Your task to perform on an android device: Install the eBay app Image 0: 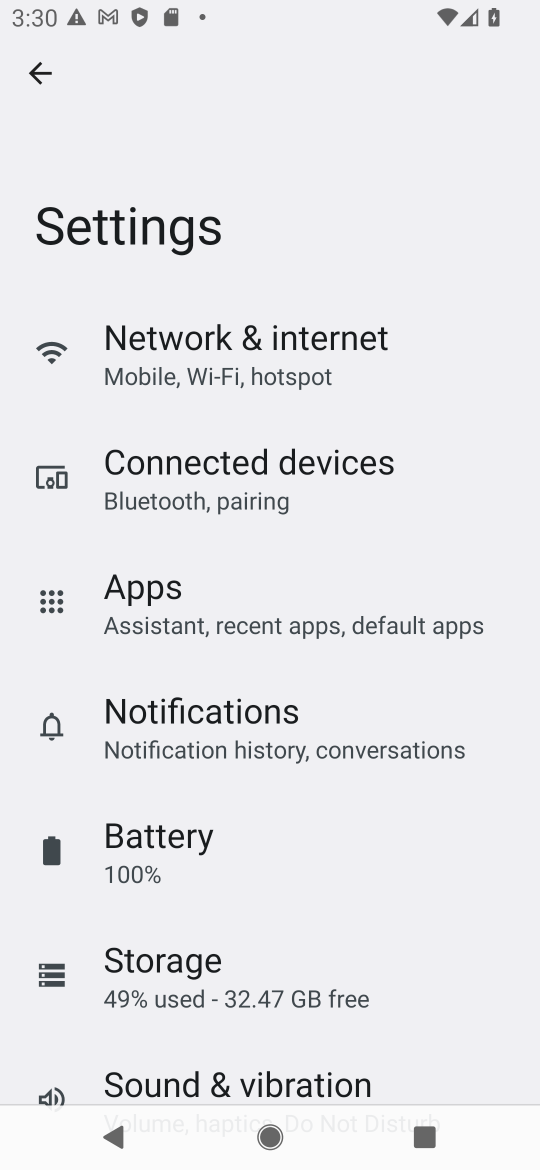
Step 0: press home button
Your task to perform on an android device: Install the eBay app Image 1: 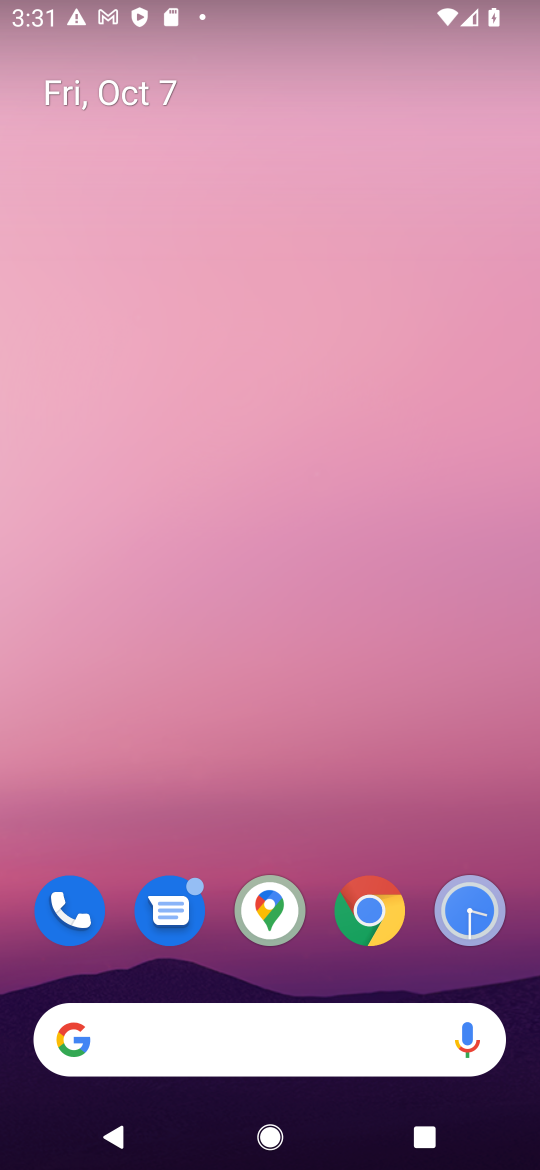
Step 1: drag from (243, 843) to (235, 353)
Your task to perform on an android device: Install the eBay app Image 2: 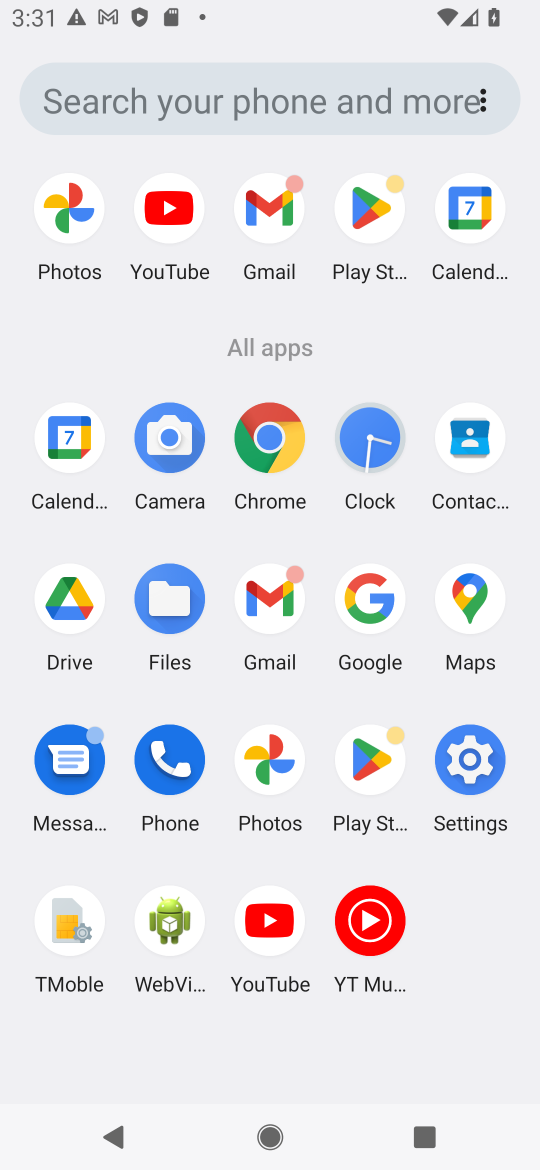
Step 2: click (362, 217)
Your task to perform on an android device: Install the eBay app Image 3: 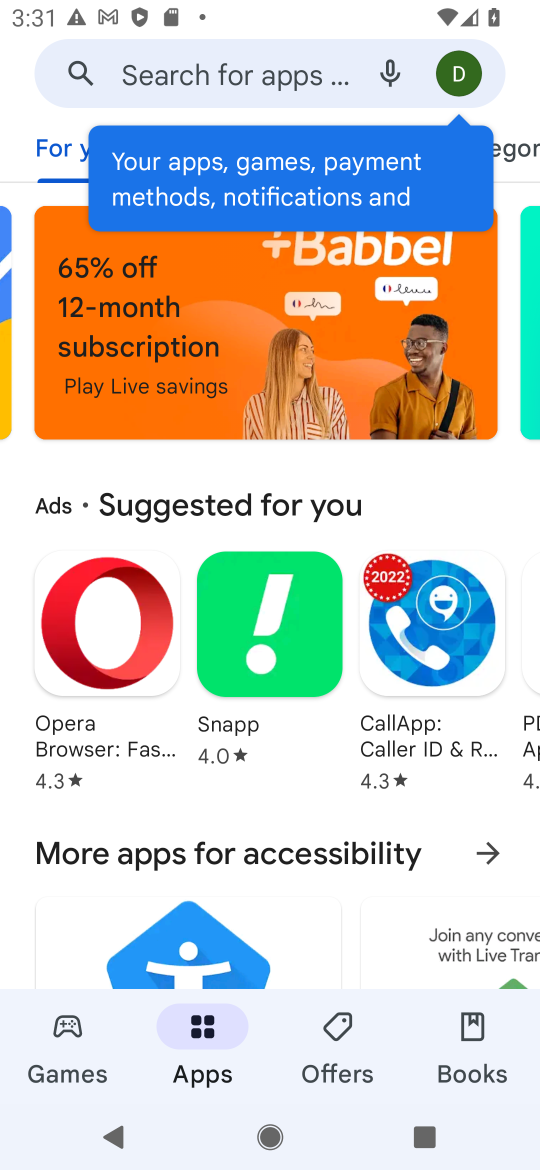
Step 3: click (233, 67)
Your task to perform on an android device: Install the eBay app Image 4: 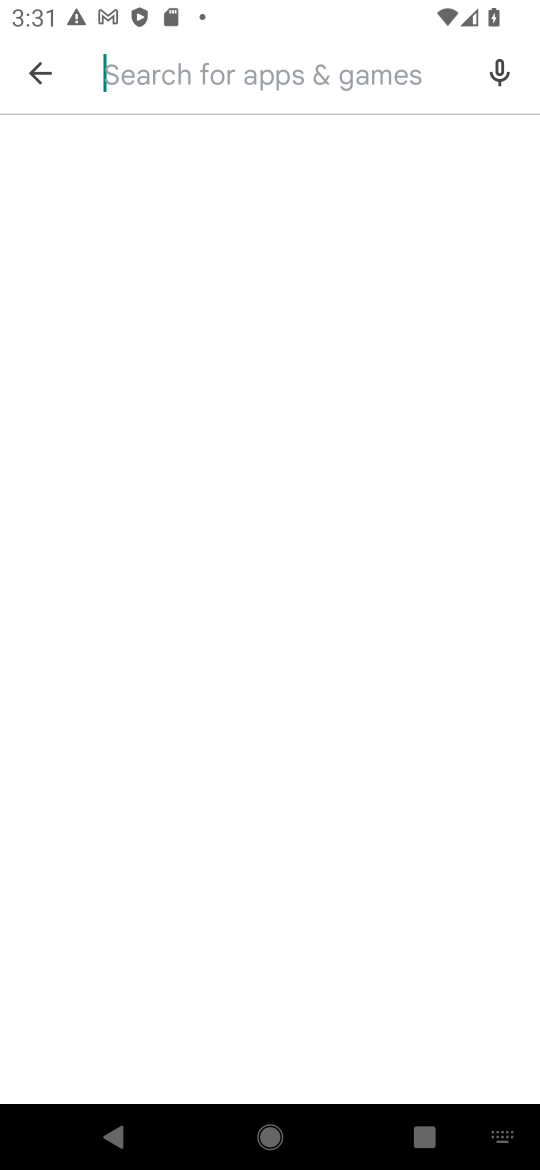
Step 4: type " eBay app"
Your task to perform on an android device: Install the eBay app Image 5: 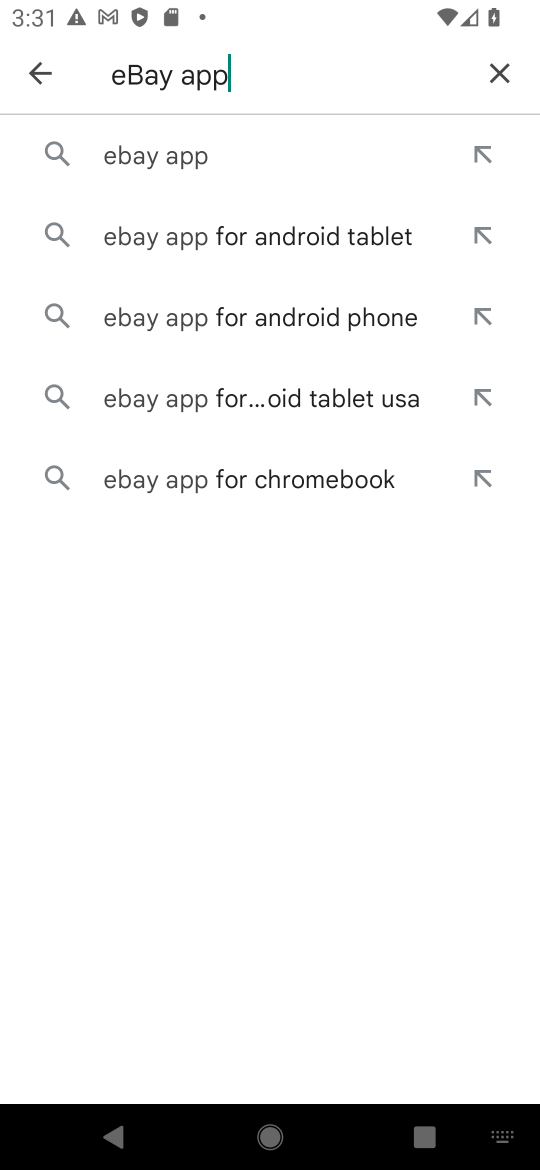
Step 5: click (160, 164)
Your task to perform on an android device: Install the eBay app Image 6: 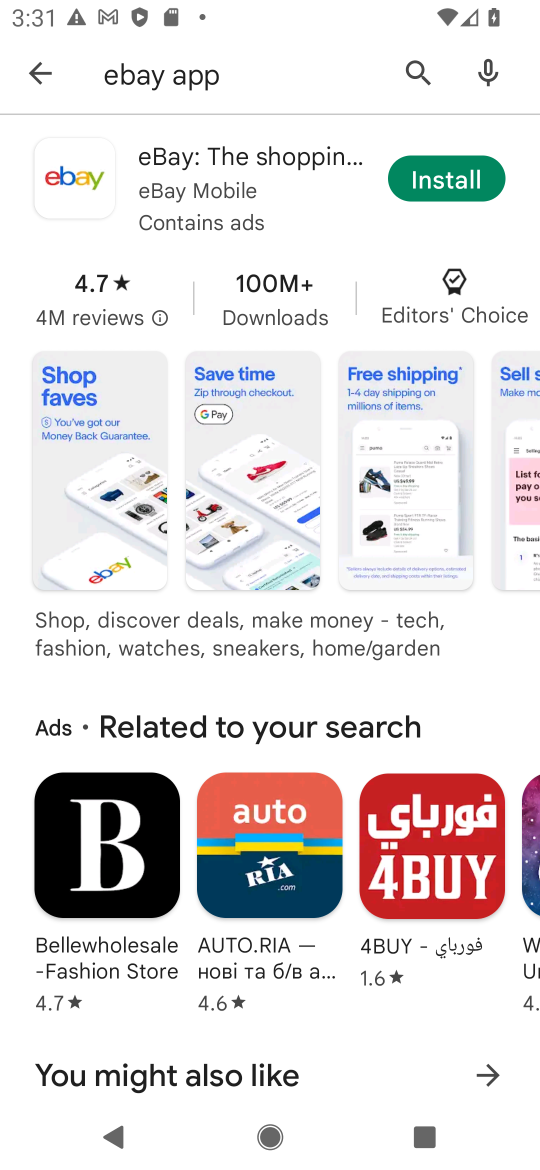
Step 6: click (453, 168)
Your task to perform on an android device: Install the eBay app Image 7: 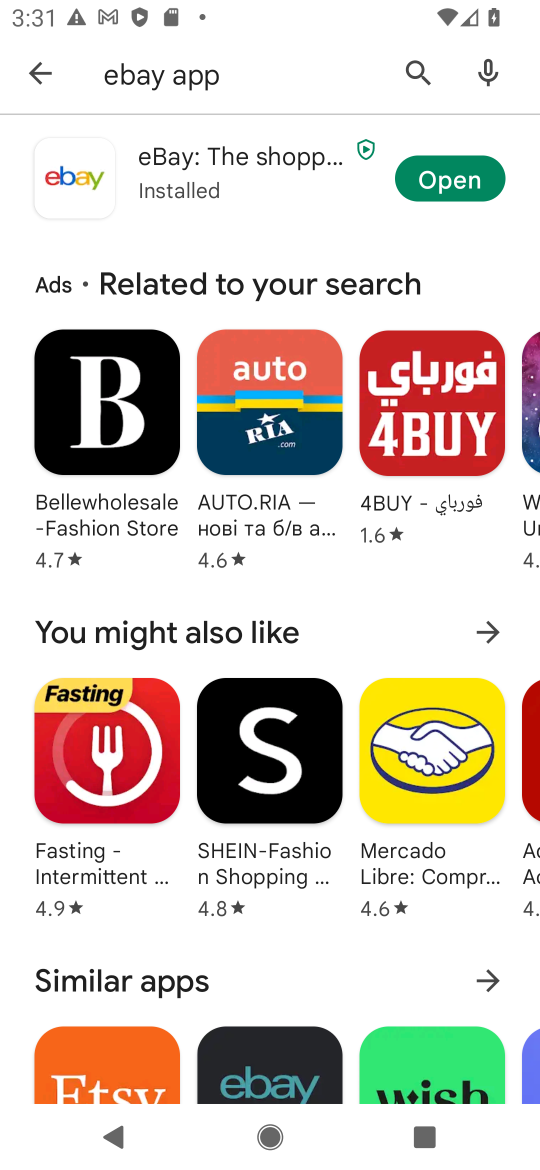
Step 7: click (453, 168)
Your task to perform on an android device: Install the eBay app Image 8: 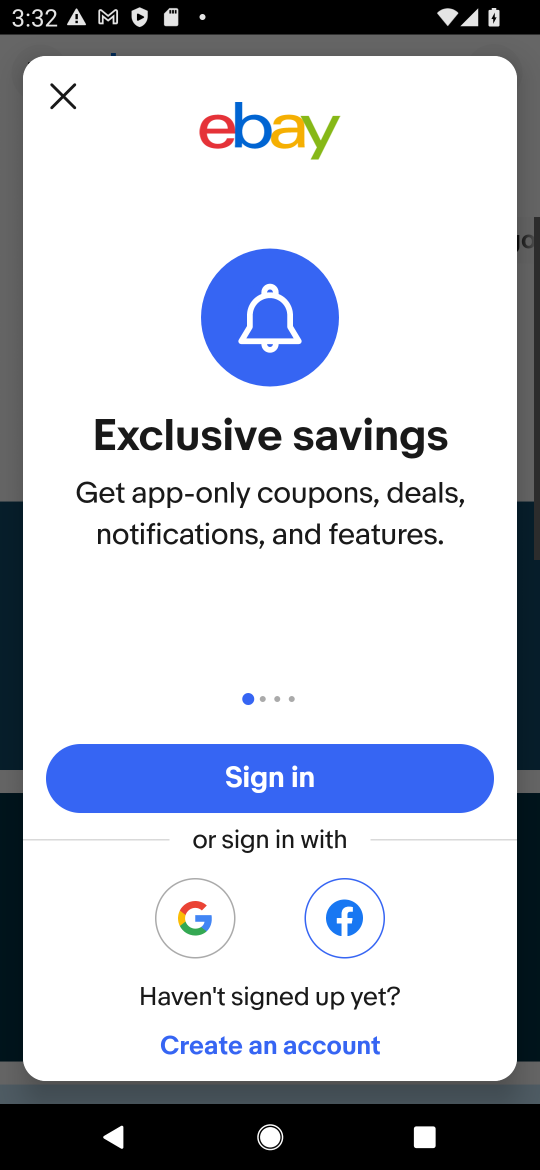
Step 8: task complete